Your task to perform on an android device: Go to display settings Image 0: 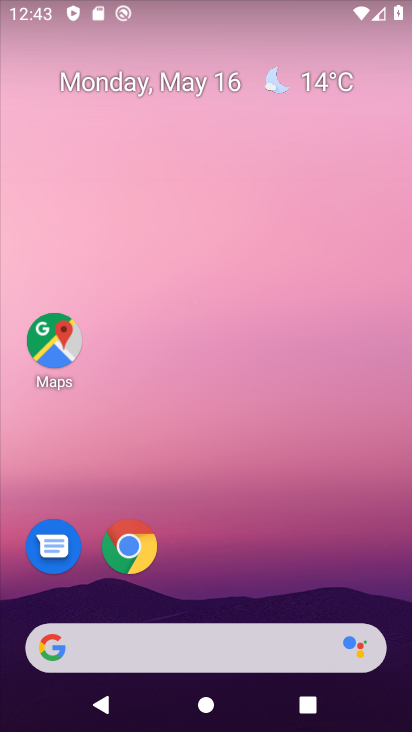
Step 0: drag from (237, 672) to (367, 214)
Your task to perform on an android device: Go to display settings Image 1: 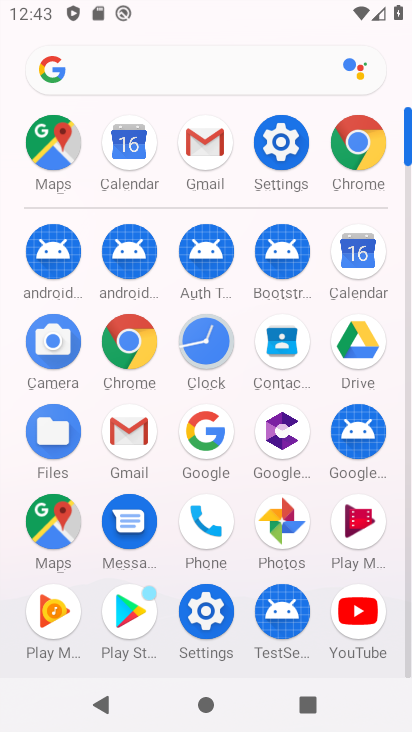
Step 1: click (283, 143)
Your task to perform on an android device: Go to display settings Image 2: 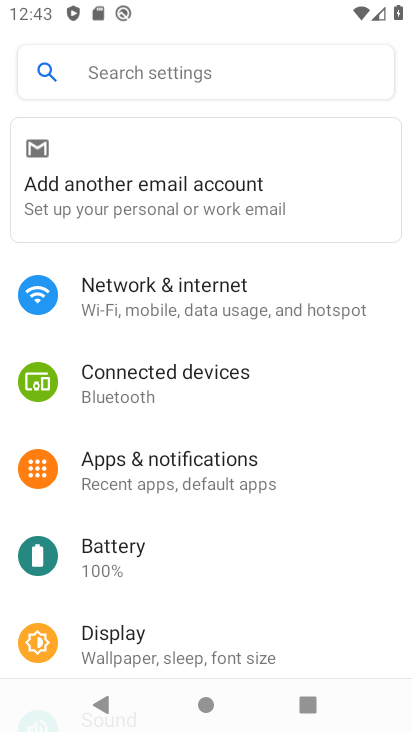
Step 2: click (85, 643)
Your task to perform on an android device: Go to display settings Image 3: 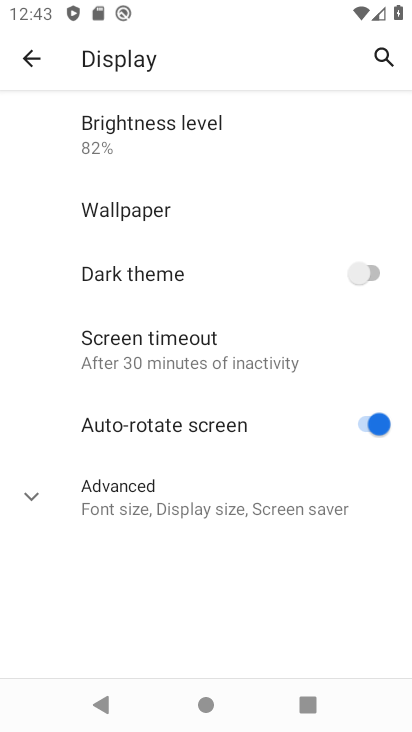
Step 3: click (50, 514)
Your task to perform on an android device: Go to display settings Image 4: 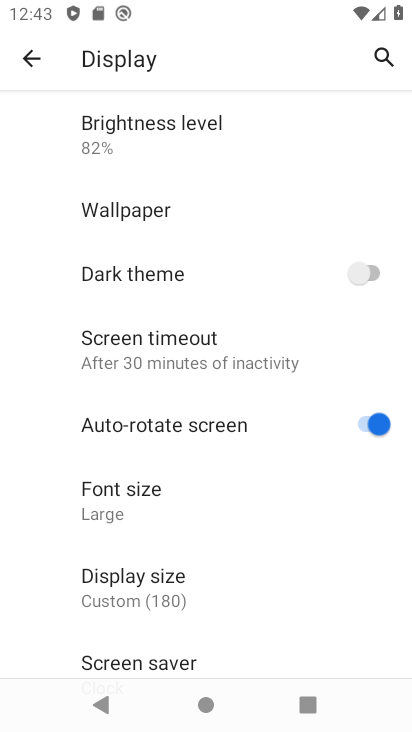
Step 4: task complete